Your task to perform on an android device: Set the phone to "Do not disturb". Image 0: 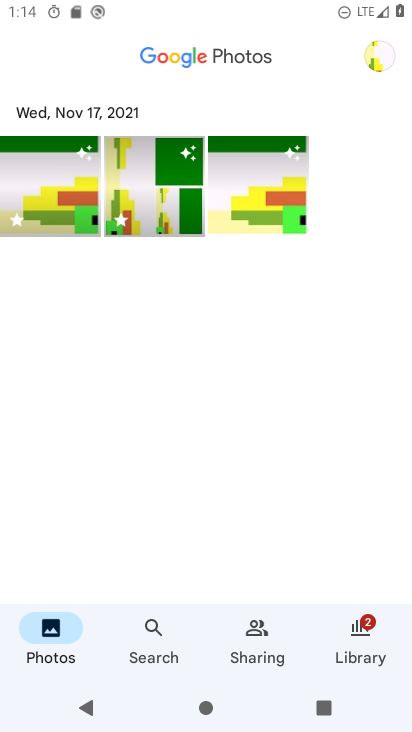
Step 0: press home button
Your task to perform on an android device: Set the phone to "Do not disturb". Image 1: 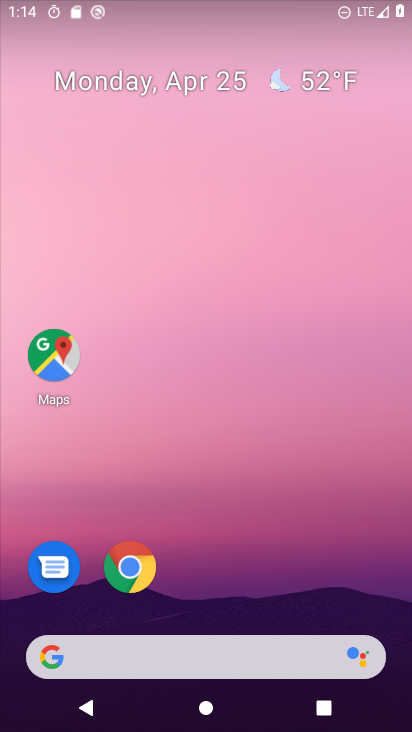
Step 1: drag from (236, 532) to (244, 0)
Your task to perform on an android device: Set the phone to "Do not disturb". Image 2: 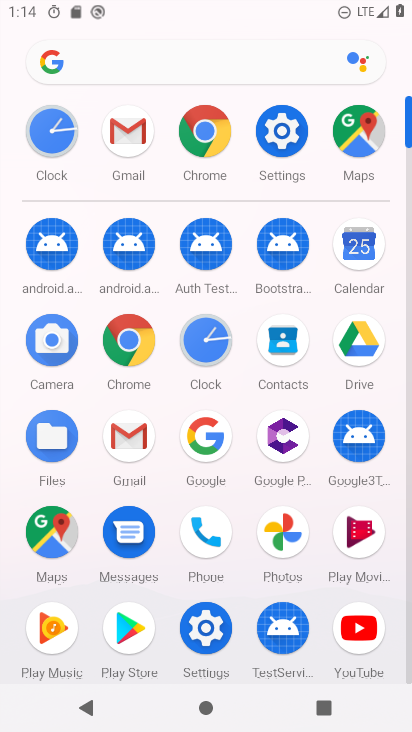
Step 2: click (278, 135)
Your task to perform on an android device: Set the phone to "Do not disturb". Image 3: 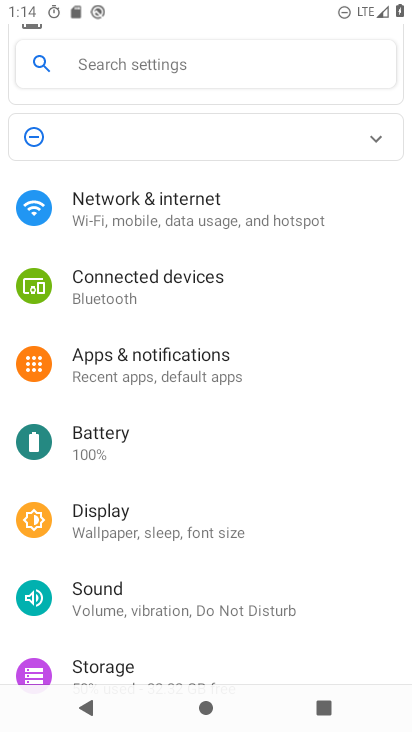
Step 3: click (184, 595)
Your task to perform on an android device: Set the phone to "Do not disturb". Image 4: 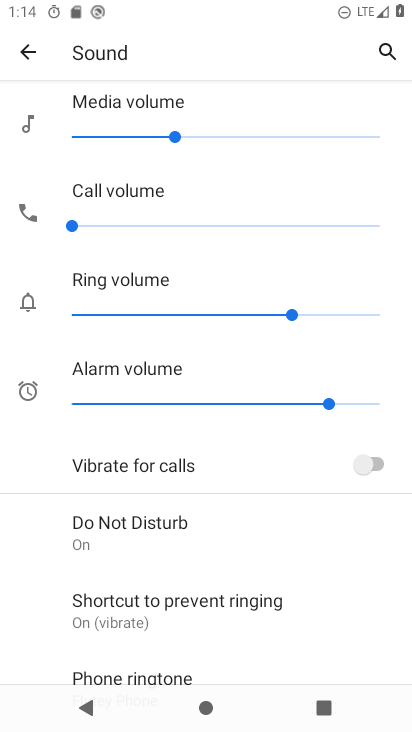
Step 4: task complete